Your task to perform on an android device: turn on the 12-hour format for clock Image 0: 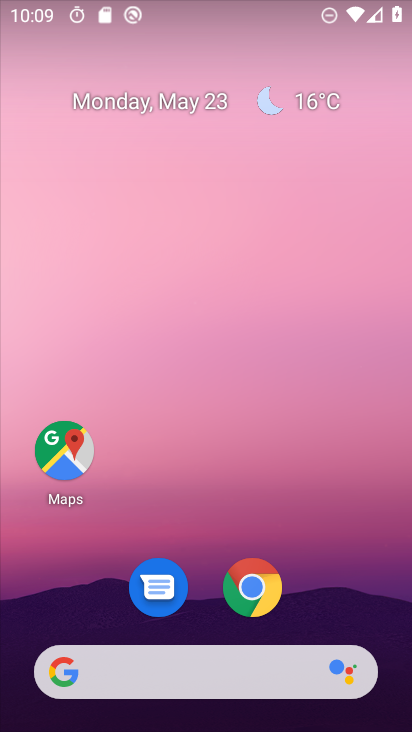
Step 0: drag from (195, 420) to (229, 96)
Your task to perform on an android device: turn on the 12-hour format for clock Image 1: 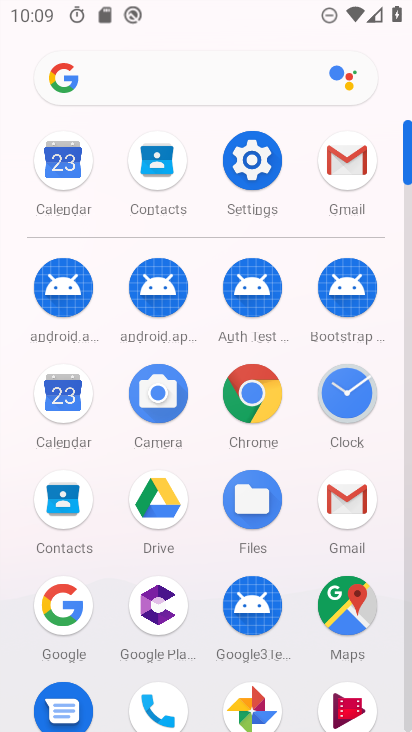
Step 1: click (350, 404)
Your task to perform on an android device: turn on the 12-hour format for clock Image 2: 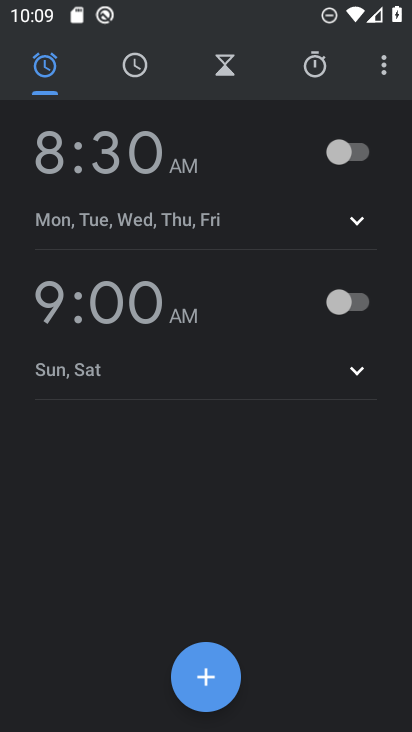
Step 2: click (378, 56)
Your task to perform on an android device: turn on the 12-hour format for clock Image 3: 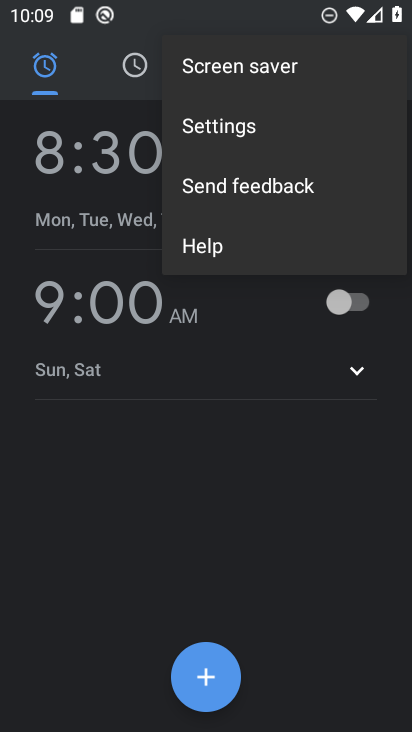
Step 3: click (271, 137)
Your task to perform on an android device: turn on the 12-hour format for clock Image 4: 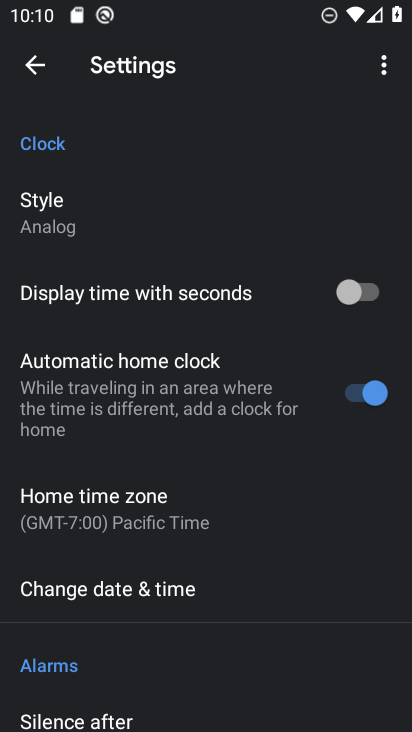
Step 4: click (104, 581)
Your task to perform on an android device: turn on the 12-hour format for clock Image 5: 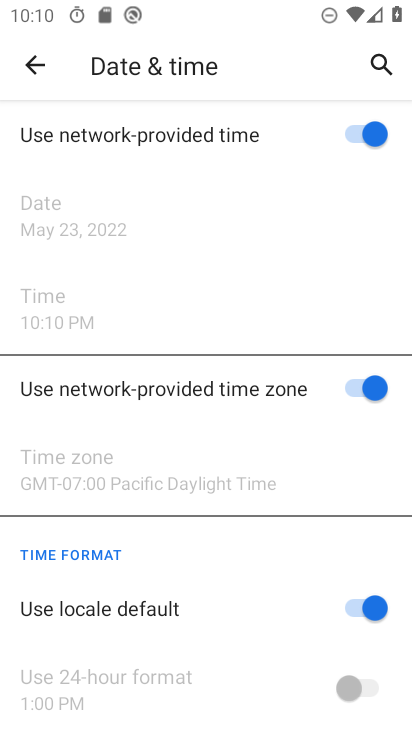
Step 5: task complete